Your task to perform on an android device: Open settings on Google Maps Image 0: 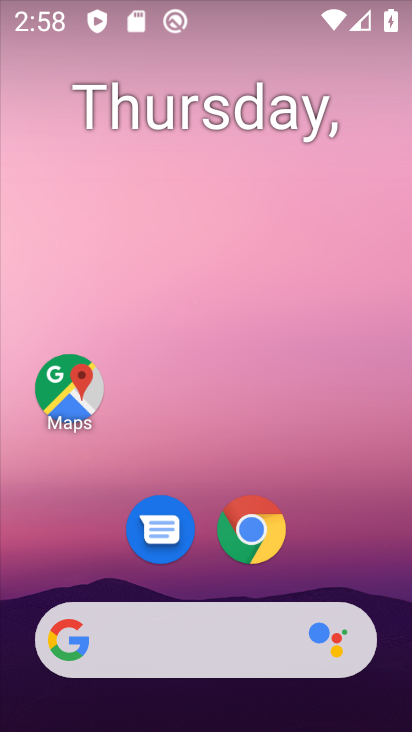
Step 0: click (71, 391)
Your task to perform on an android device: Open settings on Google Maps Image 1: 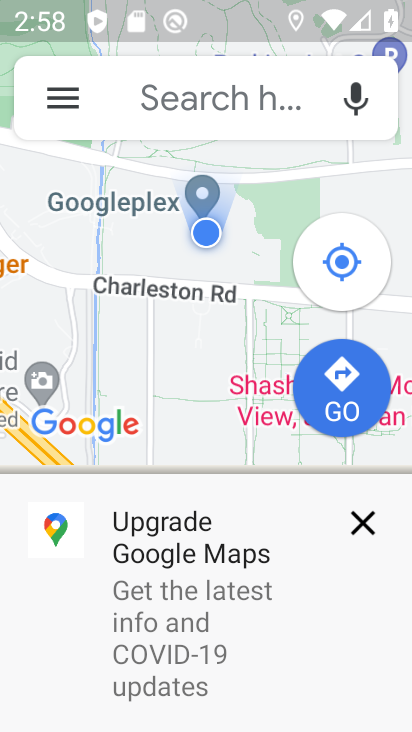
Step 1: click (58, 92)
Your task to perform on an android device: Open settings on Google Maps Image 2: 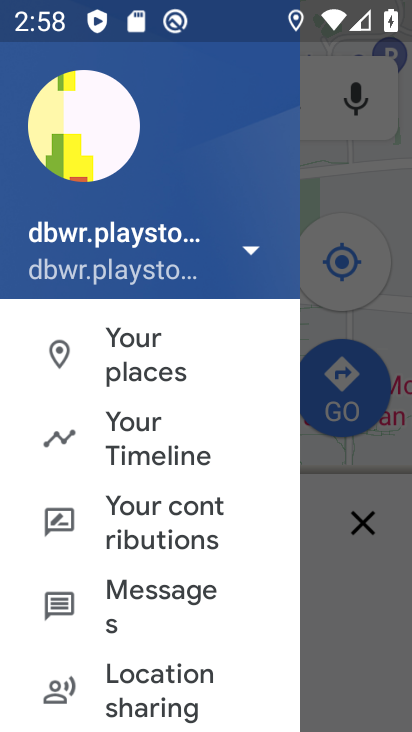
Step 2: drag from (169, 605) to (228, 403)
Your task to perform on an android device: Open settings on Google Maps Image 3: 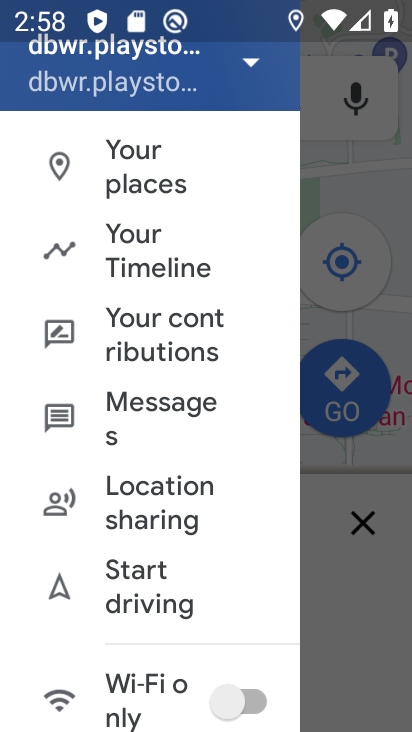
Step 3: drag from (155, 612) to (244, 358)
Your task to perform on an android device: Open settings on Google Maps Image 4: 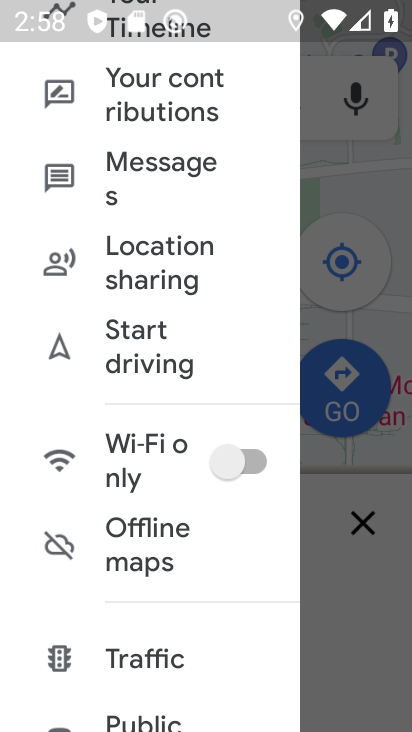
Step 4: drag from (148, 641) to (232, 321)
Your task to perform on an android device: Open settings on Google Maps Image 5: 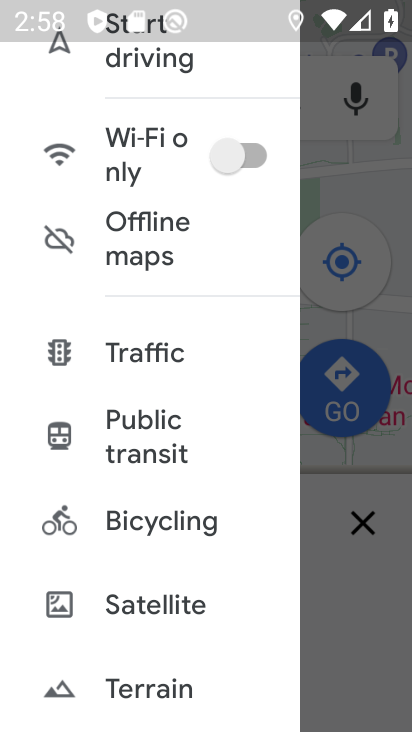
Step 5: drag from (152, 501) to (169, 227)
Your task to perform on an android device: Open settings on Google Maps Image 6: 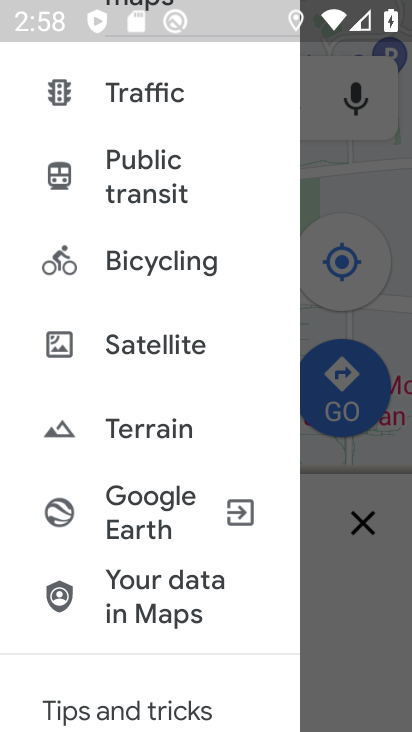
Step 6: drag from (102, 630) to (130, 427)
Your task to perform on an android device: Open settings on Google Maps Image 7: 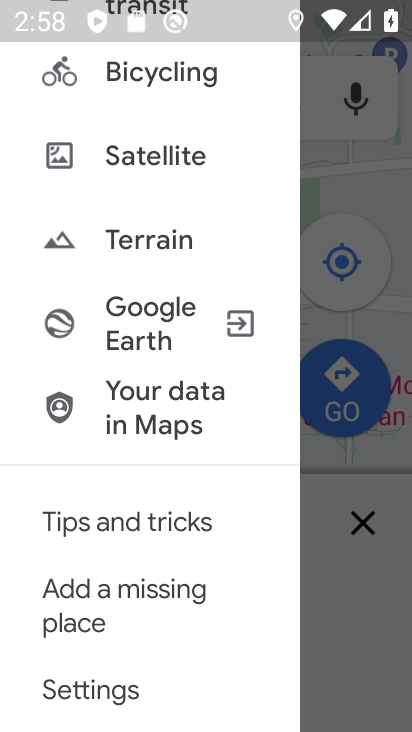
Step 7: drag from (120, 573) to (152, 487)
Your task to perform on an android device: Open settings on Google Maps Image 8: 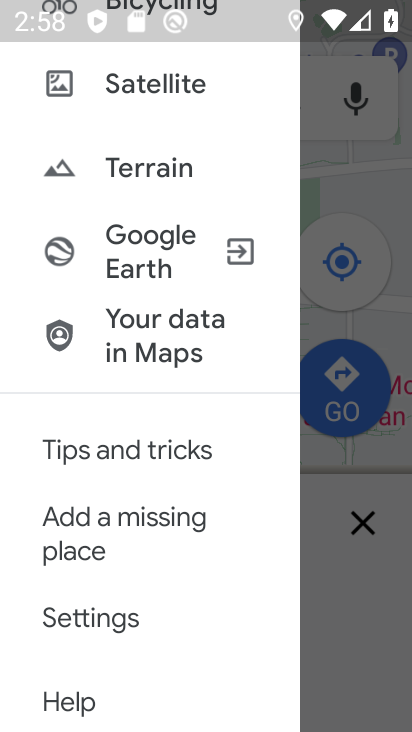
Step 8: click (94, 615)
Your task to perform on an android device: Open settings on Google Maps Image 9: 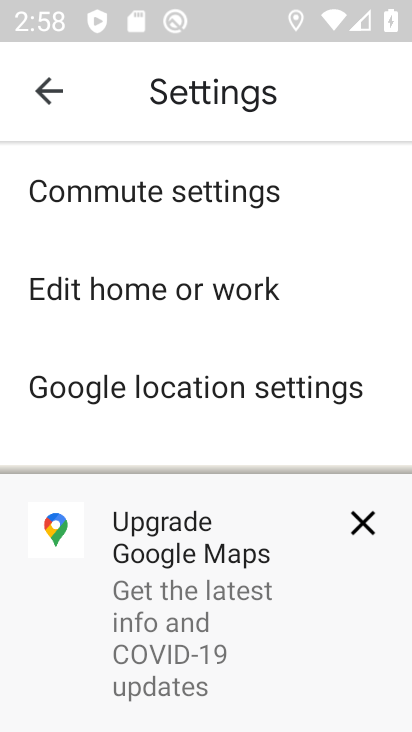
Step 9: task complete